Your task to perform on an android device: change alarm snooze length Image 0: 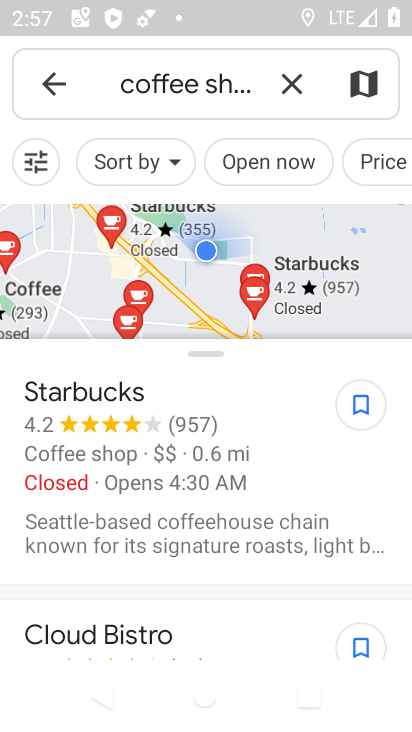
Step 0: press back button
Your task to perform on an android device: change alarm snooze length Image 1: 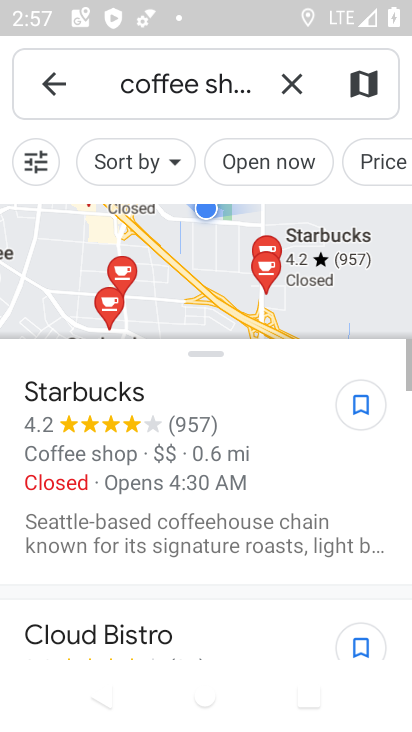
Step 1: press back button
Your task to perform on an android device: change alarm snooze length Image 2: 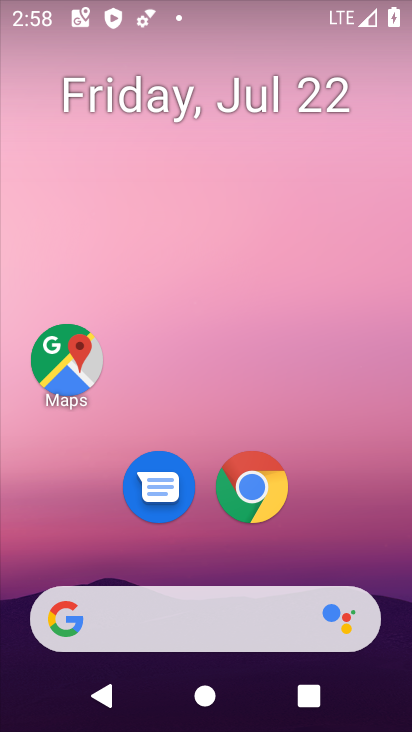
Step 2: press back button
Your task to perform on an android device: change alarm snooze length Image 3: 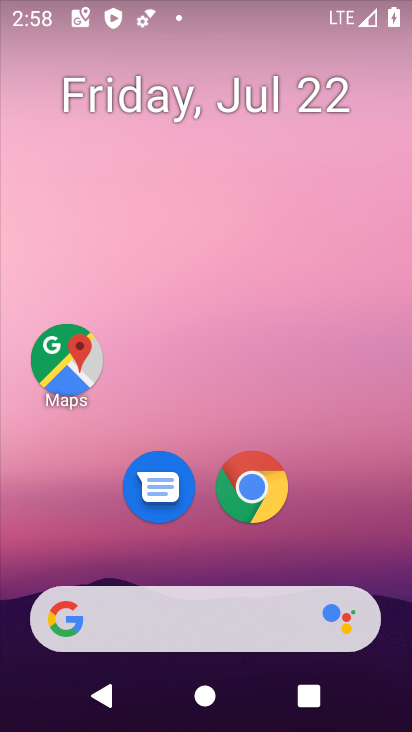
Step 3: drag from (180, 574) to (233, 24)
Your task to perform on an android device: change alarm snooze length Image 4: 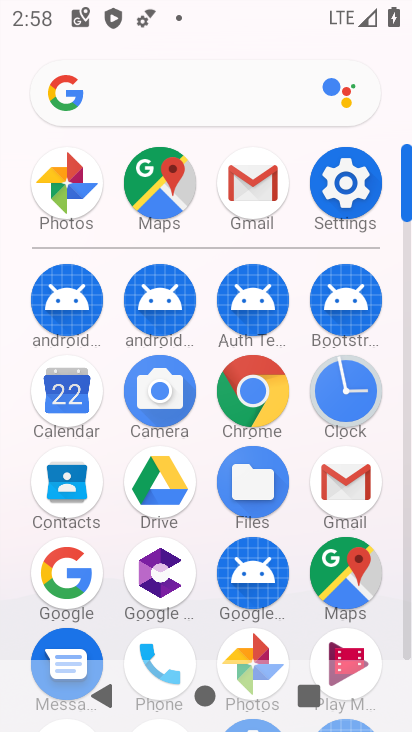
Step 4: click (347, 414)
Your task to perform on an android device: change alarm snooze length Image 5: 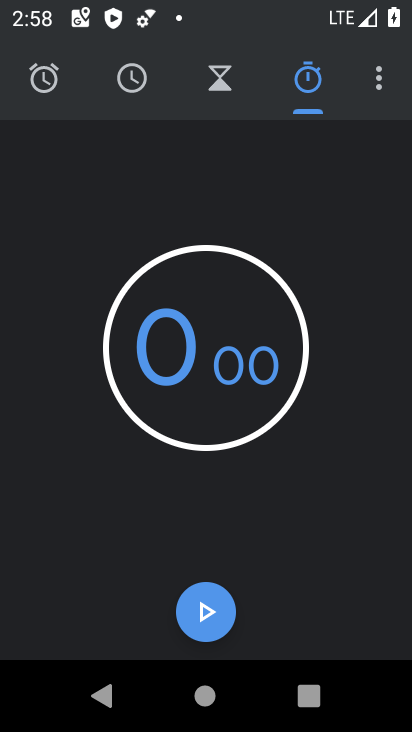
Step 5: click (377, 70)
Your task to perform on an android device: change alarm snooze length Image 6: 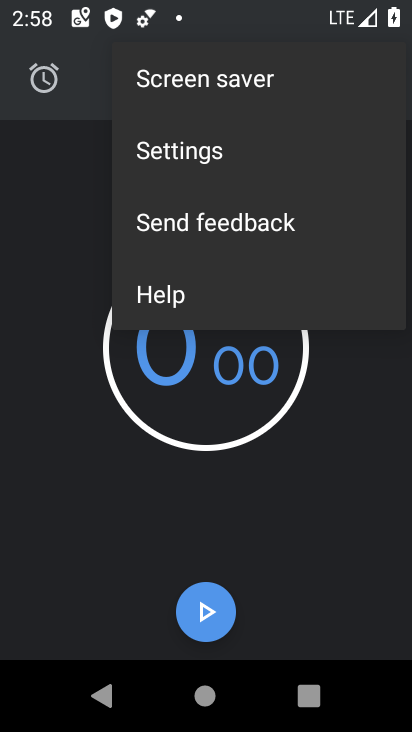
Step 6: click (247, 158)
Your task to perform on an android device: change alarm snooze length Image 7: 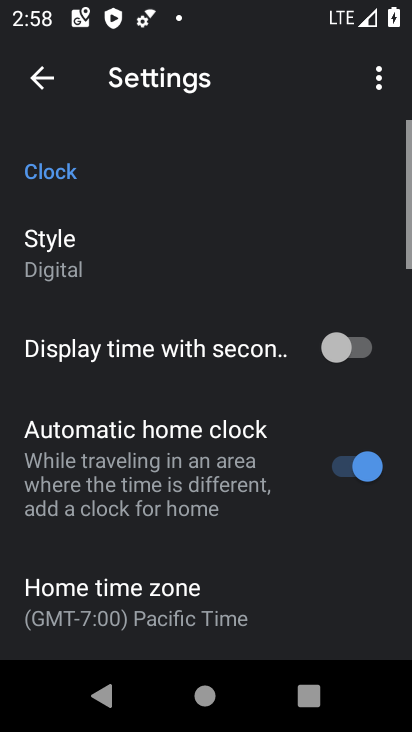
Step 7: drag from (122, 536) to (223, 81)
Your task to perform on an android device: change alarm snooze length Image 8: 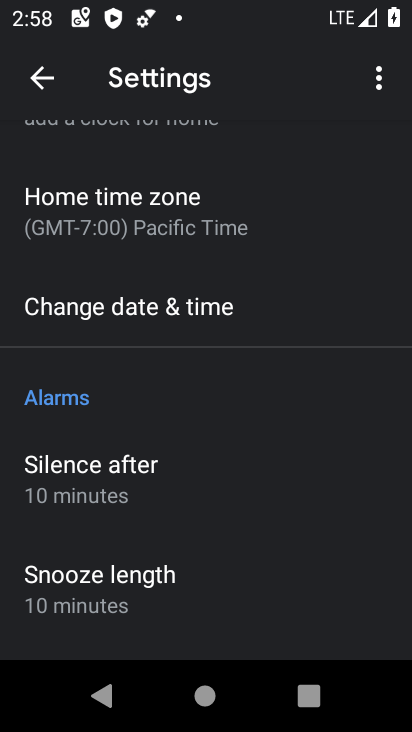
Step 8: click (108, 589)
Your task to perform on an android device: change alarm snooze length Image 9: 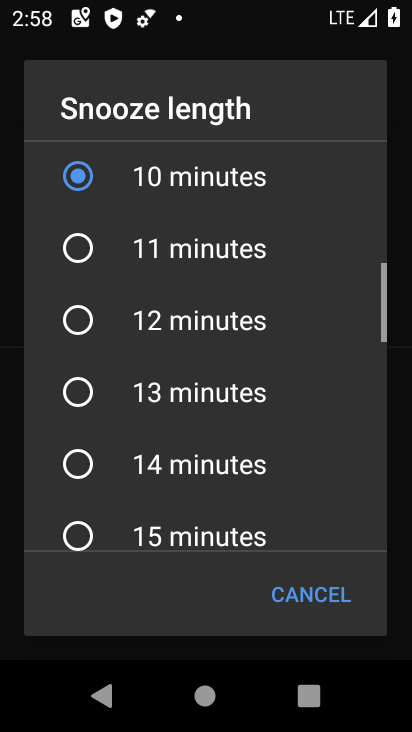
Step 9: click (91, 259)
Your task to perform on an android device: change alarm snooze length Image 10: 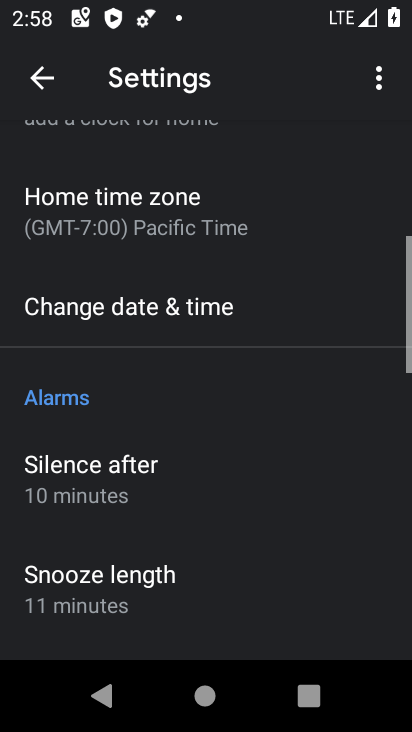
Step 10: task complete